Your task to perform on an android device: add a contact Image 0: 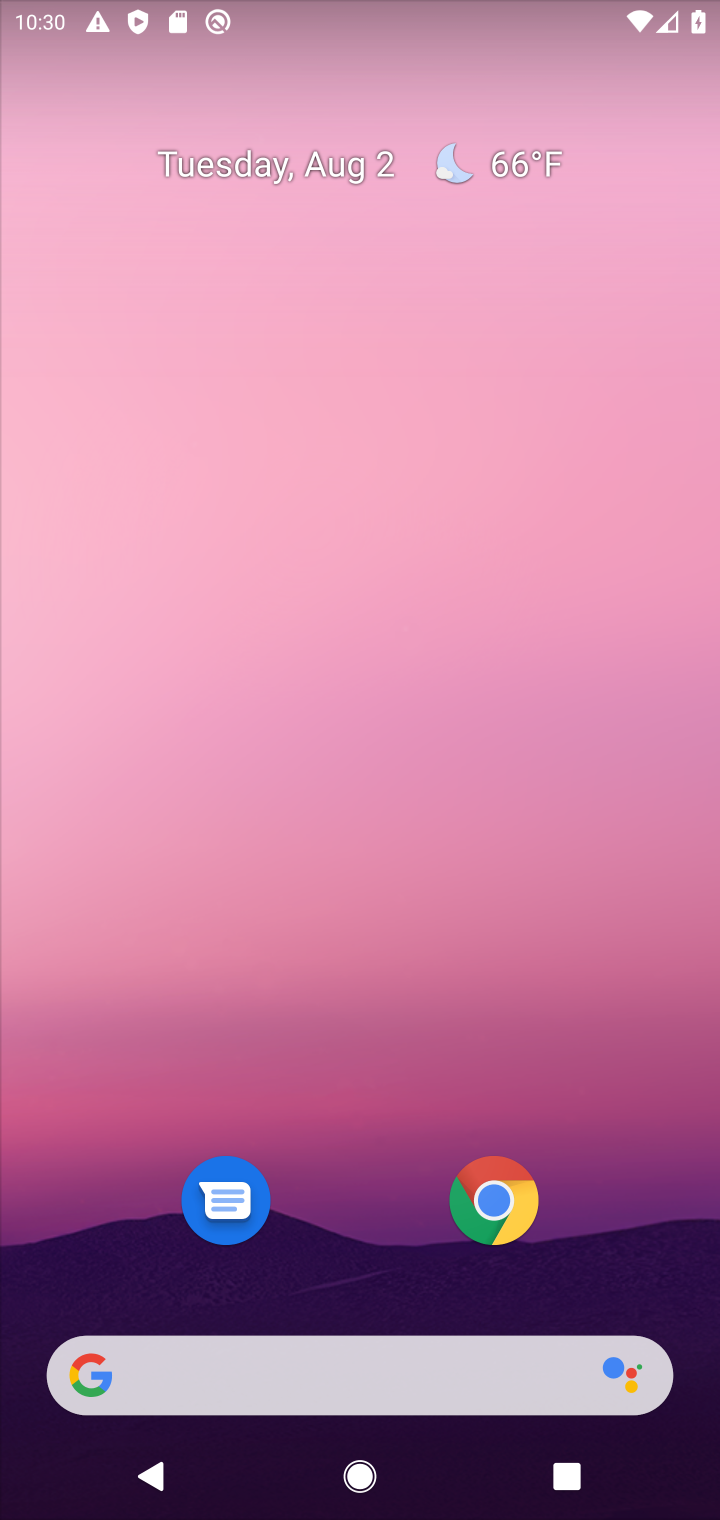
Step 0: drag from (672, 1302) to (645, 65)
Your task to perform on an android device: add a contact Image 1: 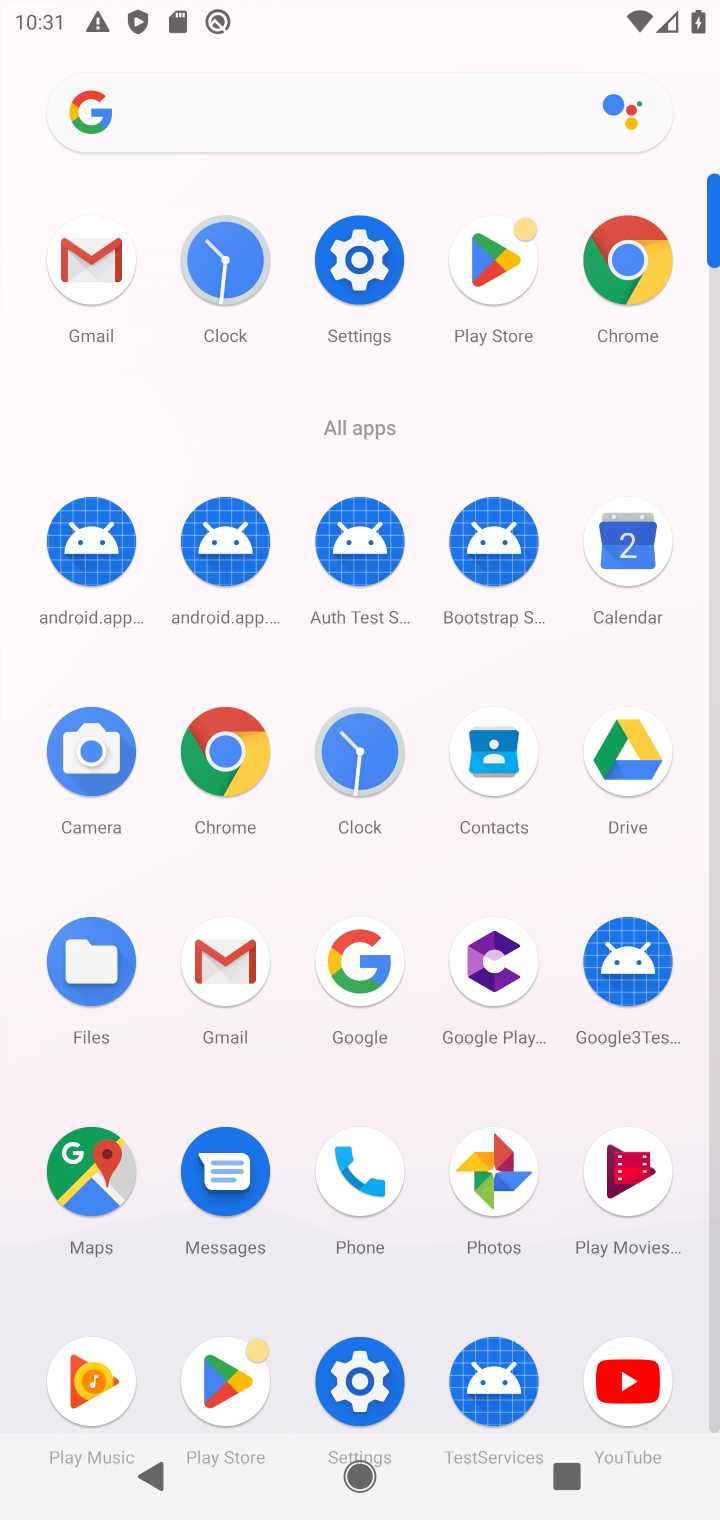
Step 1: click (490, 754)
Your task to perform on an android device: add a contact Image 2: 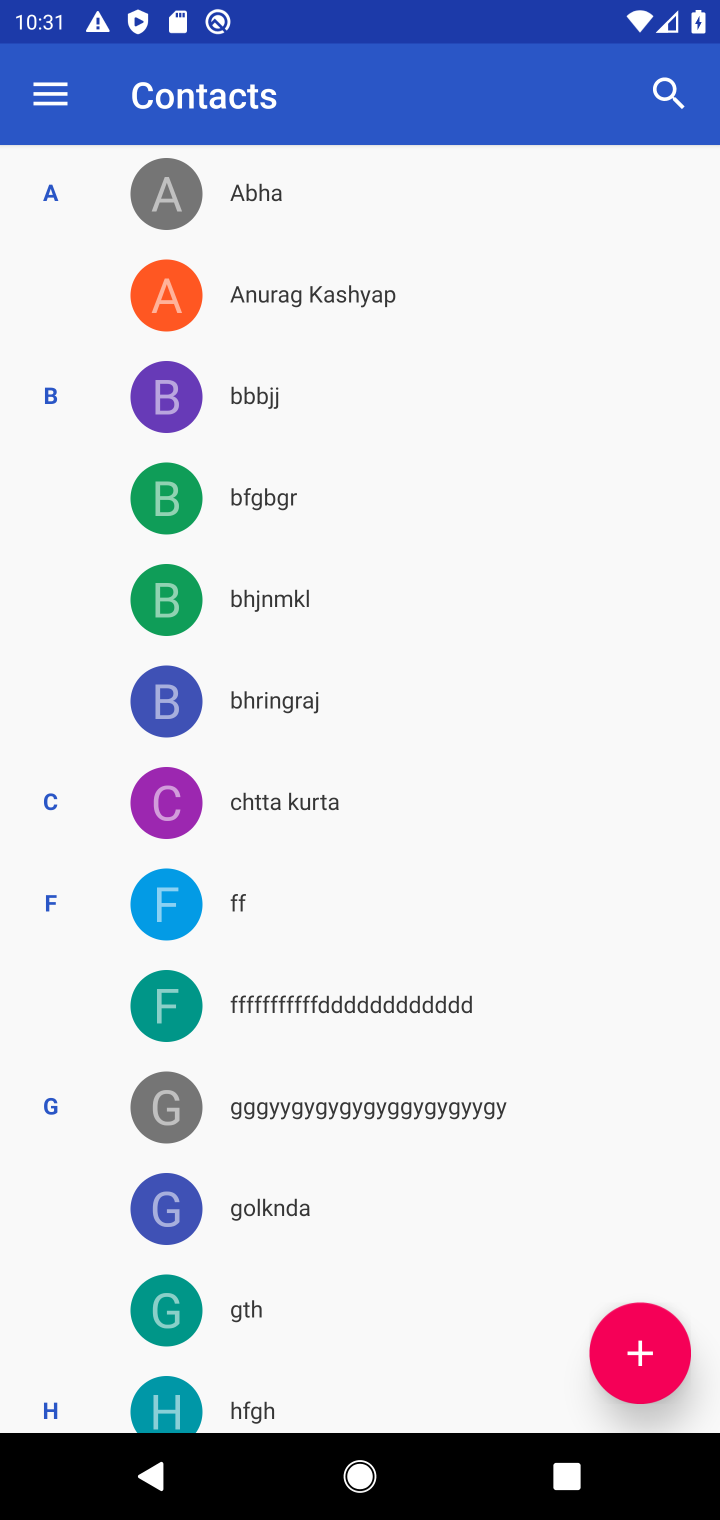
Step 2: click (639, 1357)
Your task to perform on an android device: add a contact Image 3: 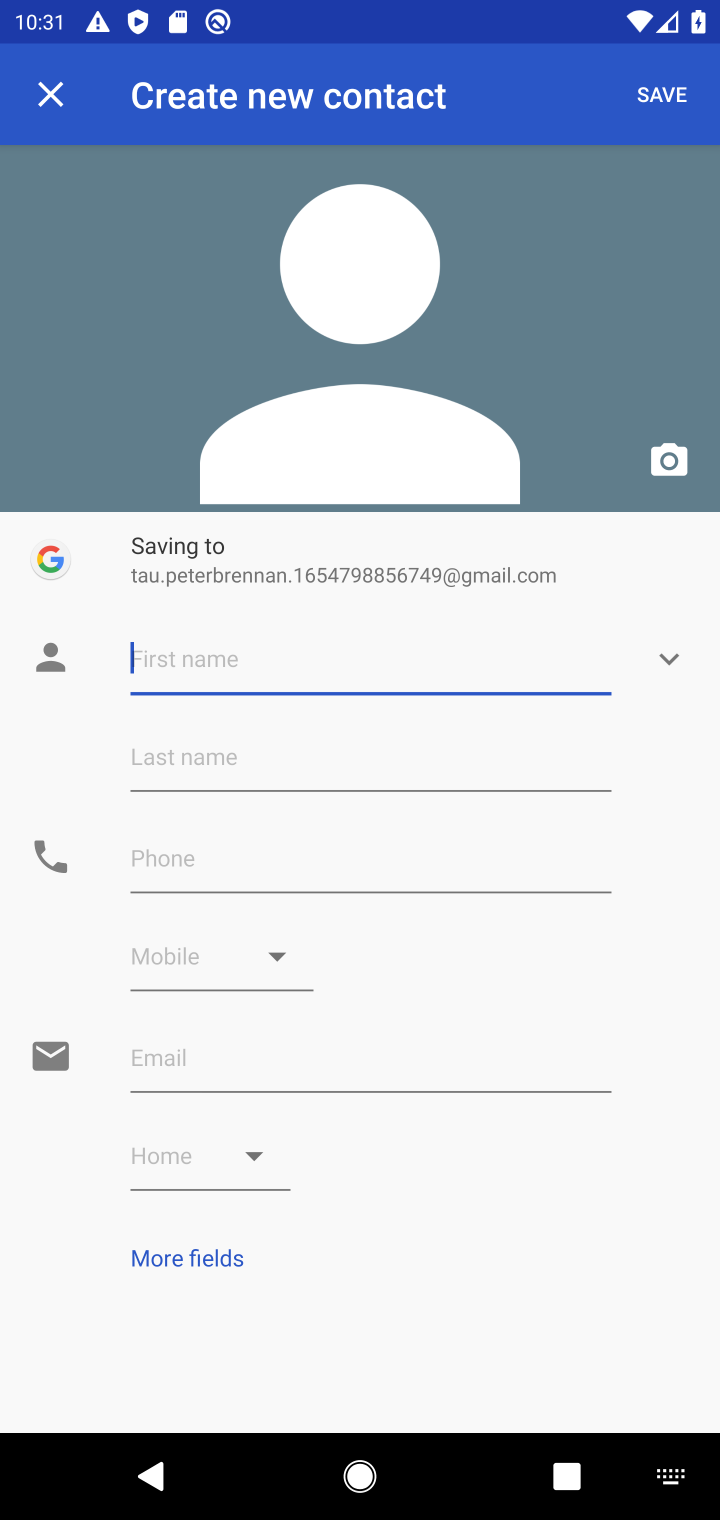
Step 3: type "rtrugjgmvn"
Your task to perform on an android device: add a contact Image 4: 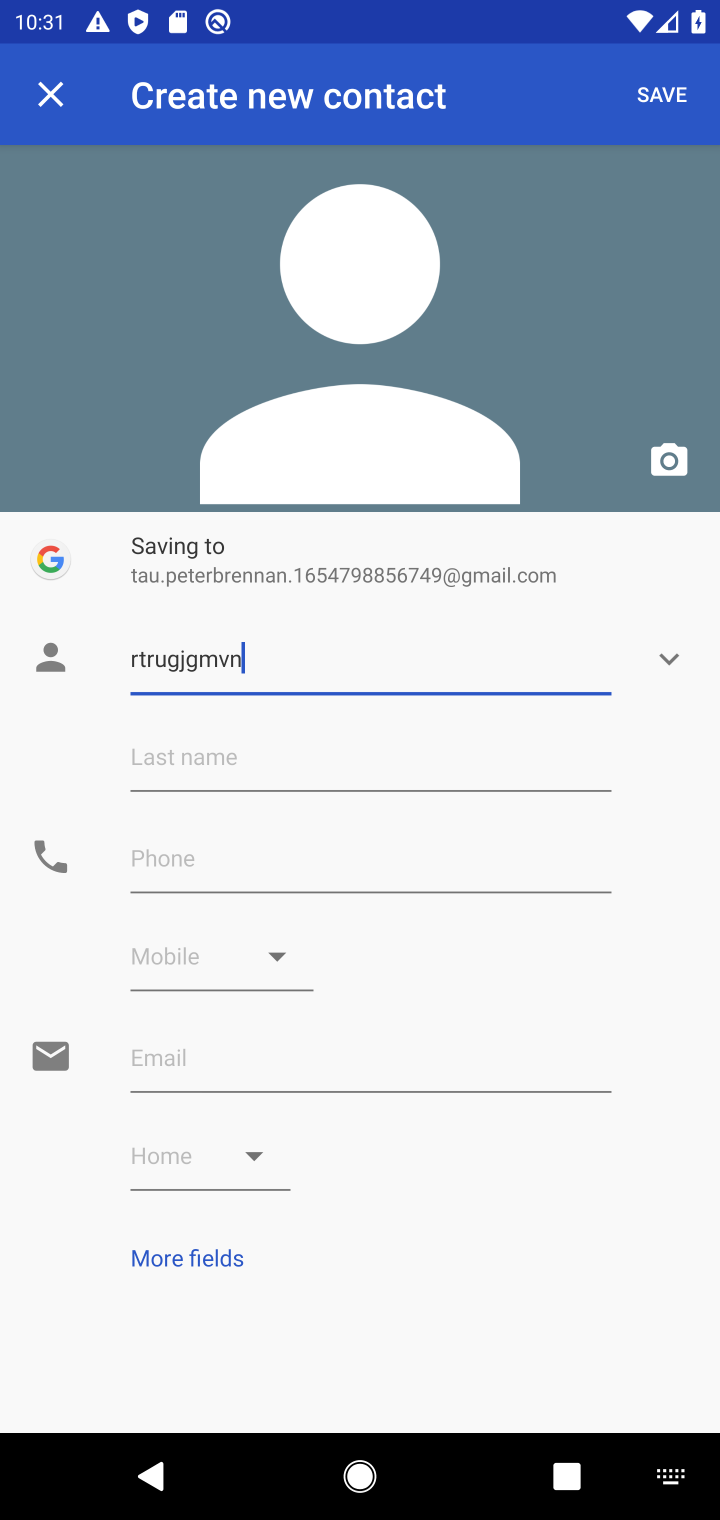
Step 4: click (183, 868)
Your task to perform on an android device: add a contact Image 5: 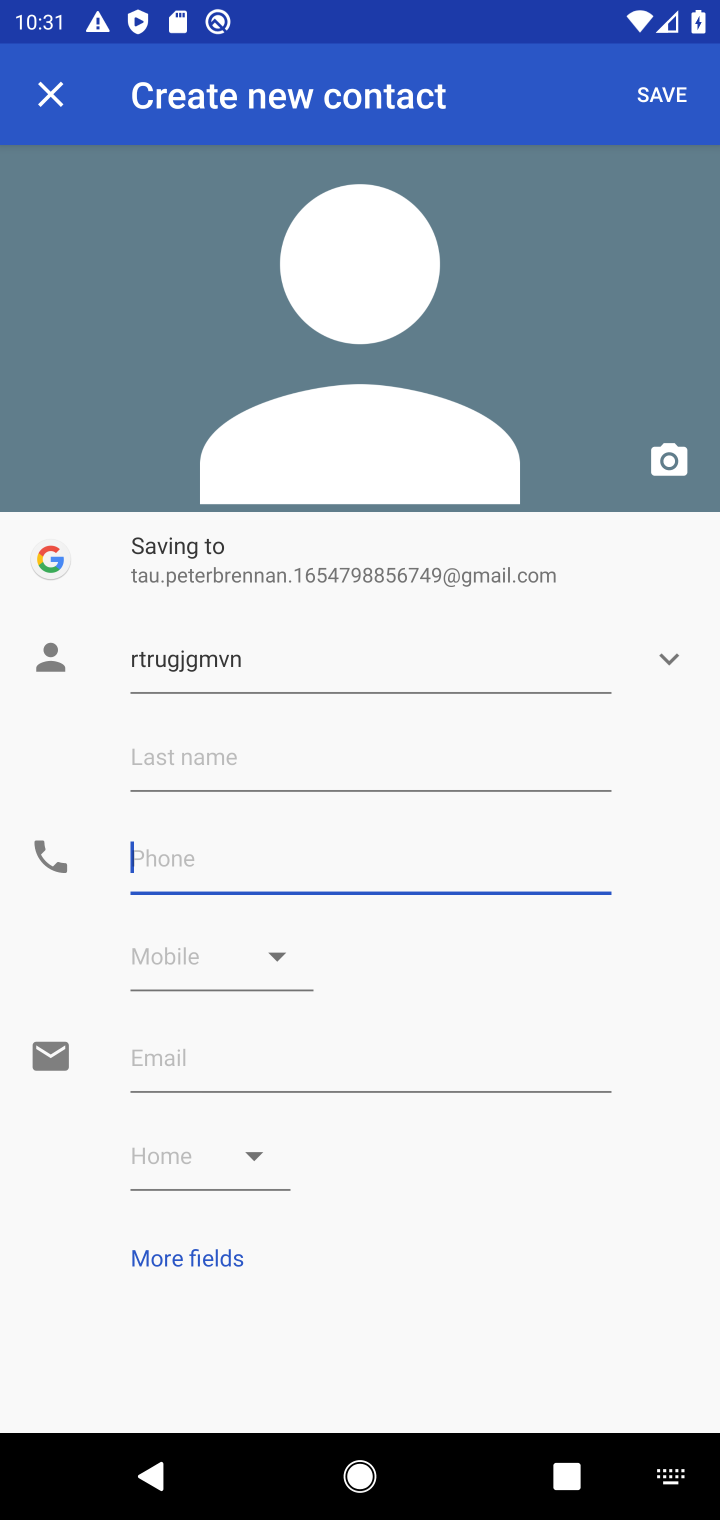
Step 5: type "09433582609"
Your task to perform on an android device: add a contact Image 6: 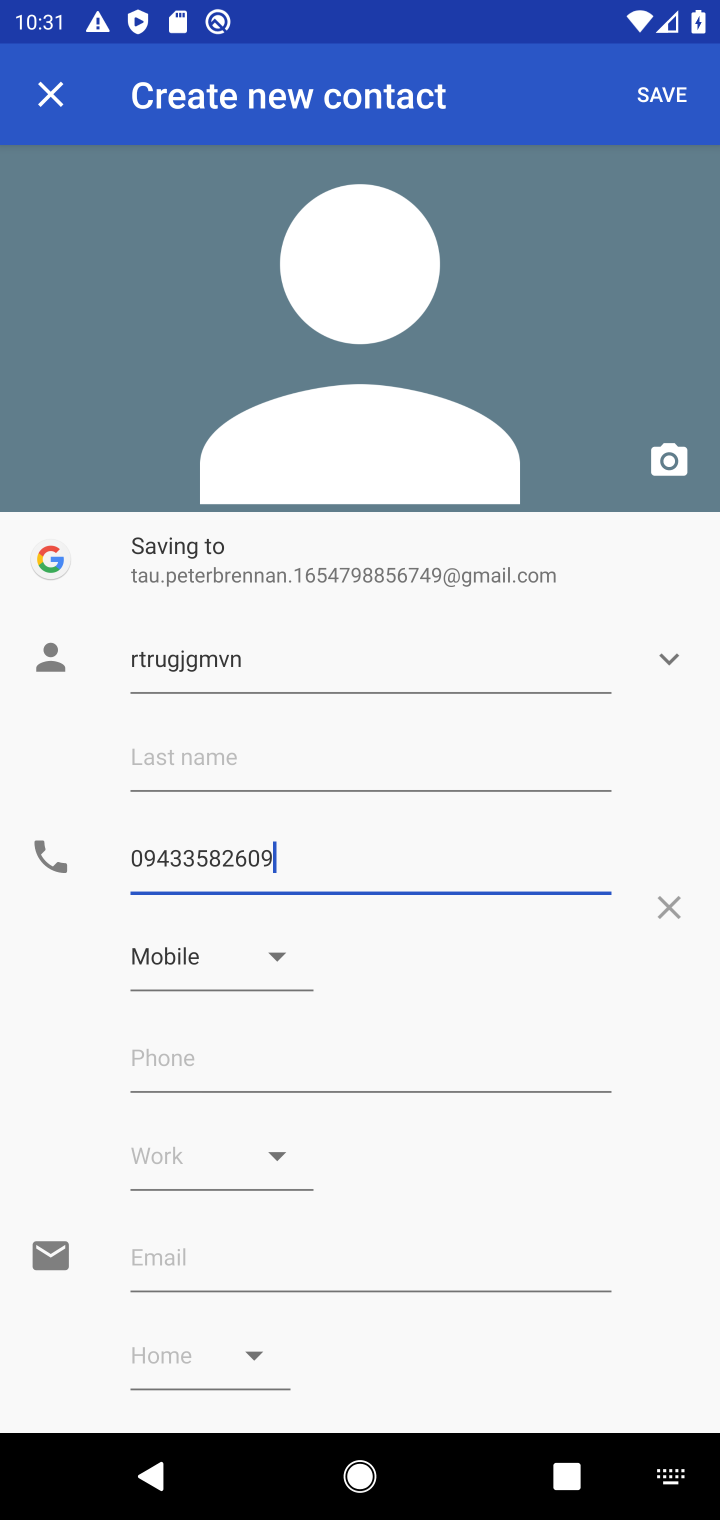
Step 6: click (661, 91)
Your task to perform on an android device: add a contact Image 7: 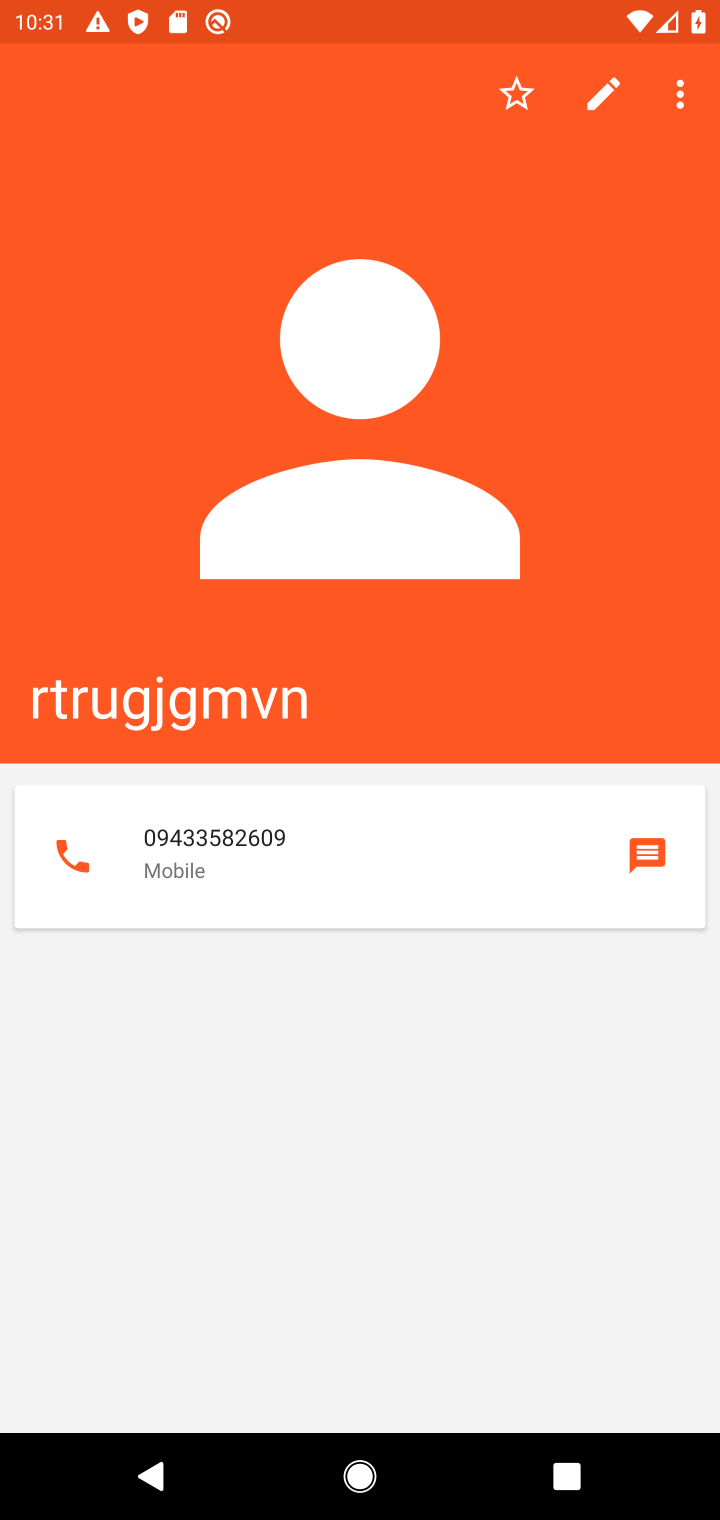
Step 7: task complete